Your task to perform on an android device: turn off smart reply in the gmail app Image 0: 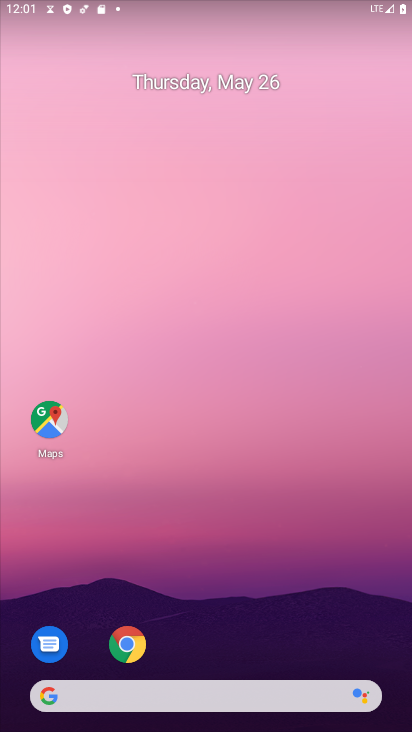
Step 0: drag from (234, 600) to (255, 21)
Your task to perform on an android device: turn off smart reply in the gmail app Image 1: 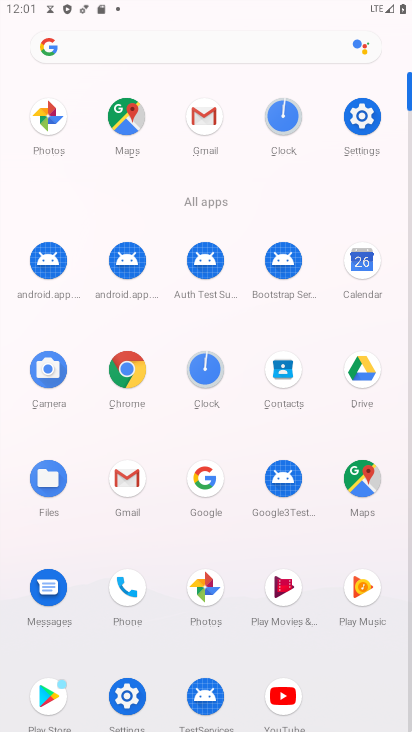
Step 1: click (204, 116)
Your task to perform on an android device: turn off smart reply in the gmail app Image 2: 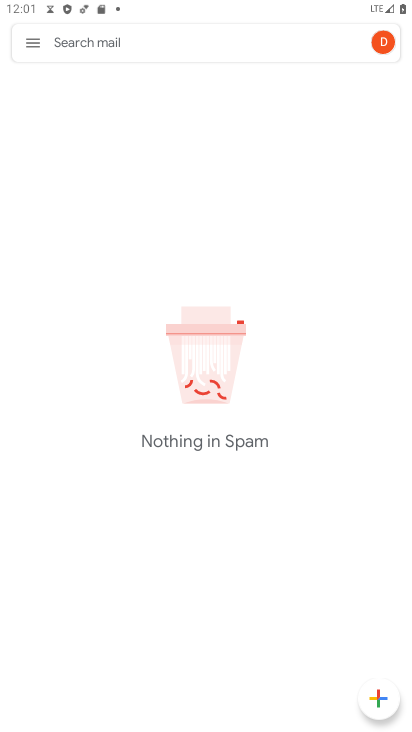
Step 2: click (37, 43)
Your task to perform on an android device: turn off smart reply in the gmail app Image 3: 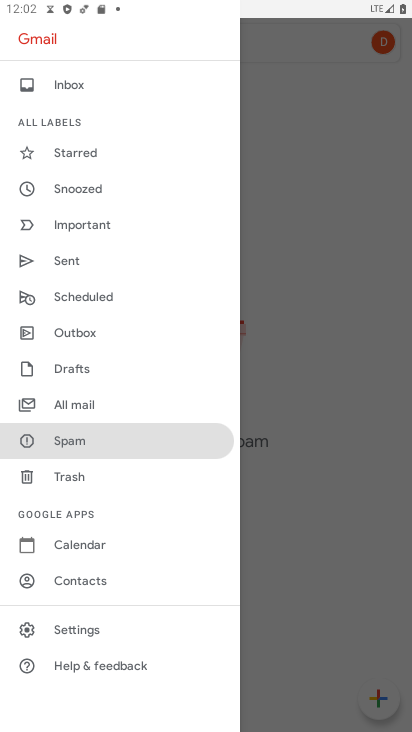
Step 3: click (91, 627)
Your task to perform on an android device: turn off smart reply in the gmail app Image 4: 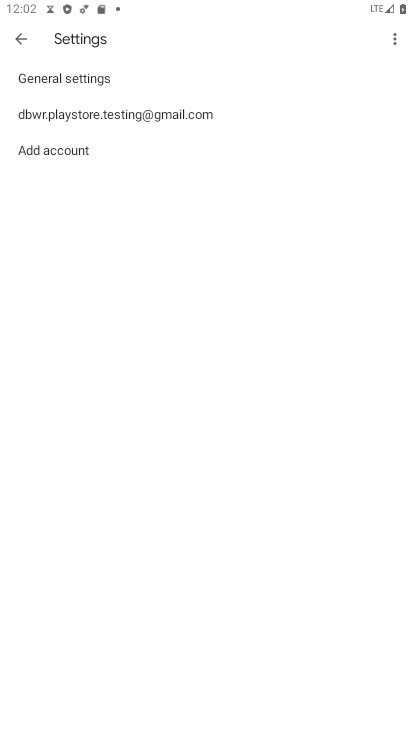
Step 4: click (153, 118)
Your task to perform on an android device: turn off smart reply in the gmail app Image 5: 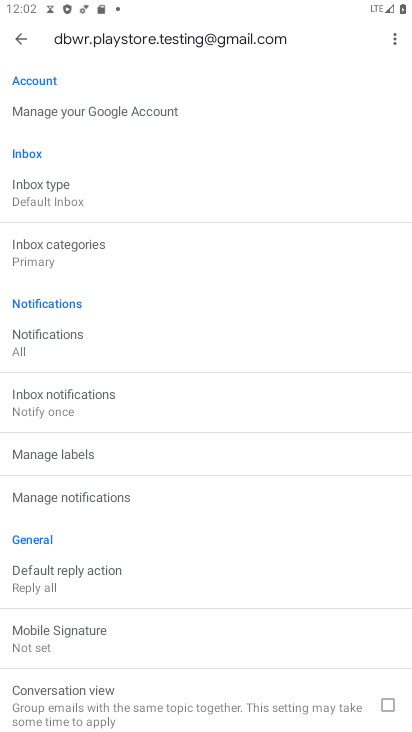
Step 5: drag from (83, 366) to (121, 274)
Your task to perform on an android device: turn off smart reply in the gmail app Image 6: 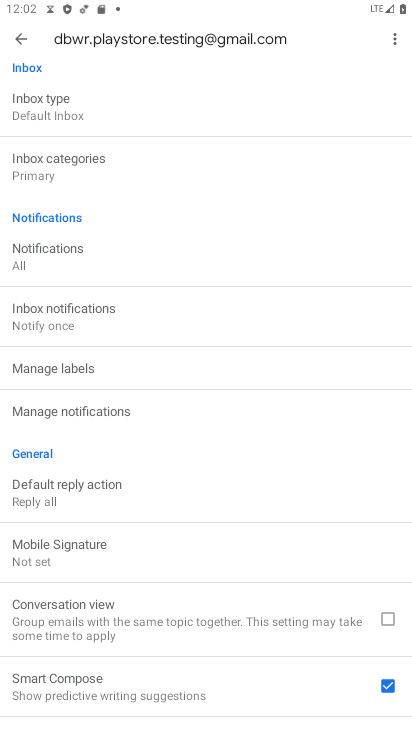
Step 6: drag from (89, 379) to (115, 340)
Your task to perform on an android device: turn off smart reply in the gmail app Image 7: 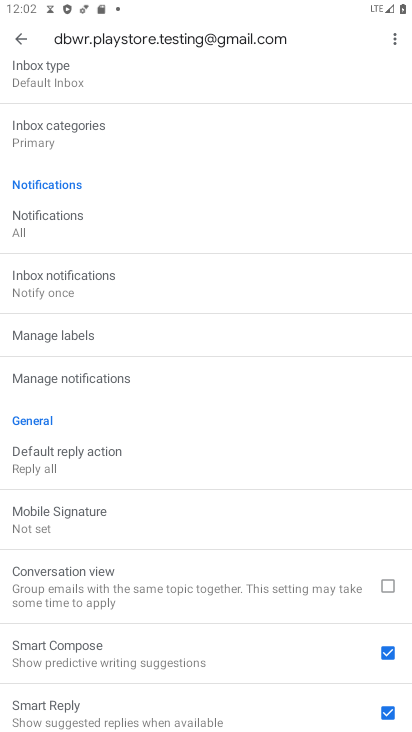
Step 7: drag from (91, 479) to (115, 441)
Your task to perform on an android device: turn off smart reply in the gmail app Image 8: 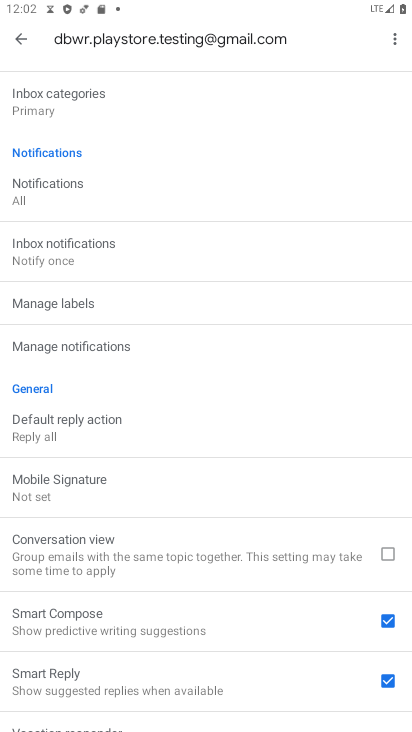
Step 8: click (387, 684)
Your task to perform on an android device: turn off smart reply in the gmail app Image 9: 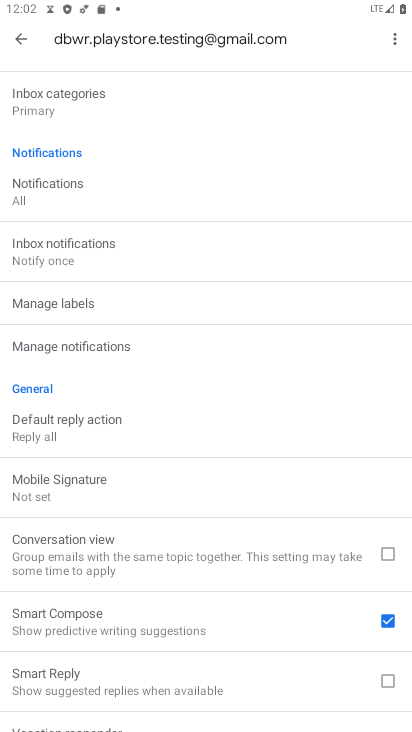
Step 9: task complete